Your task to perform on an android device: Open Google Chrome Image 0: 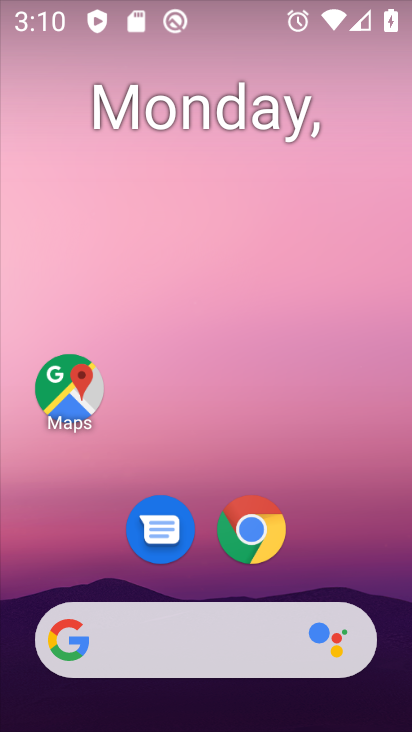
Step 0: click (239, 528)
Your task to perform on an android device: Open Google Chrome Image 1: 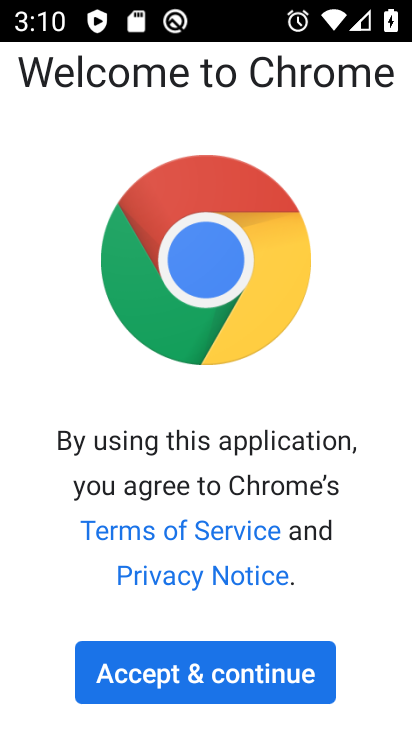
Step 1: click (221, 668)
Your task to perform on an android device: Open Google Chrome Image 2: 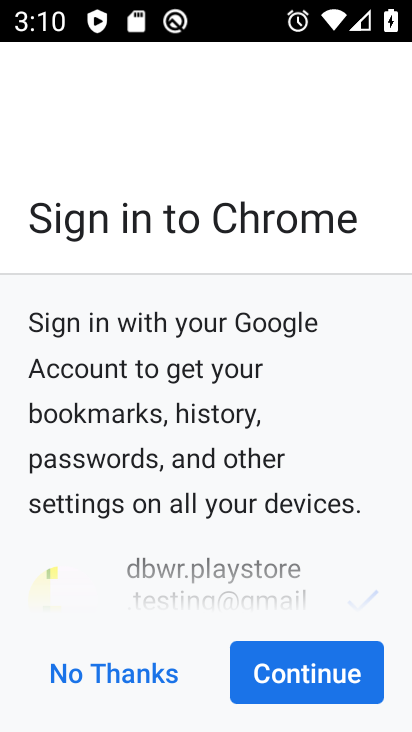
Step 2: click (336, 678)
Your task to perform on an android device: Open Google Chrome Image 3: 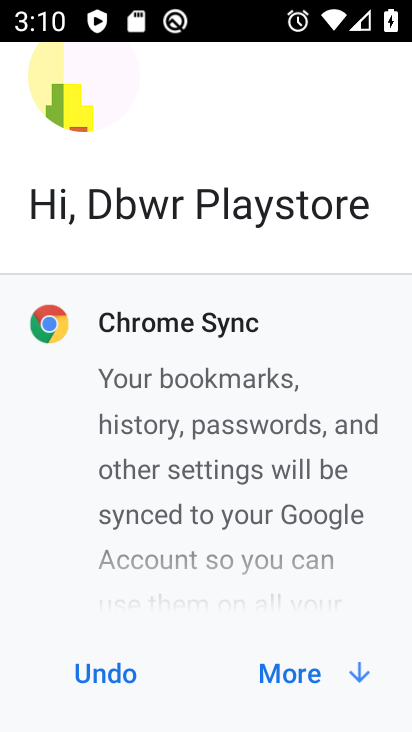
Step 3: click (336, 678)
Your task to perform on an android device: Open Google Chrome Image 4: 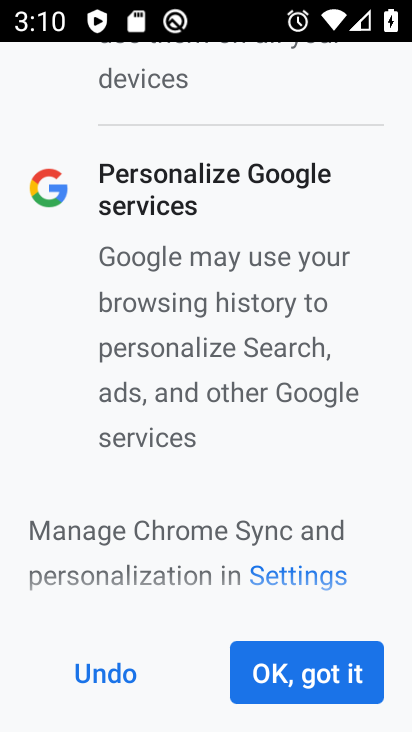
Step 4: click (336, 678)
Your task to perform on an android device: Open Google Chrome Image 5: 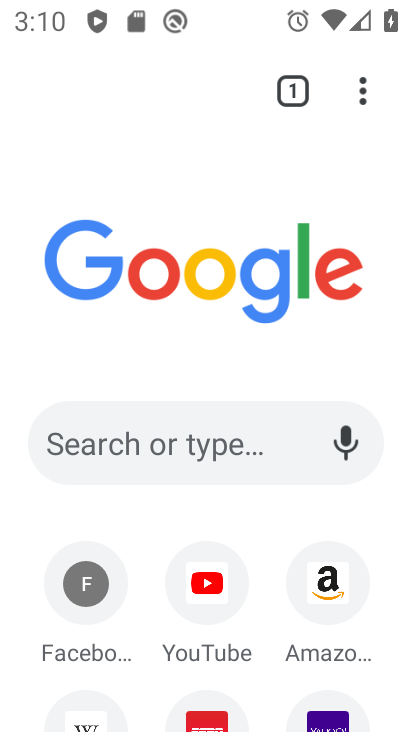
Step 5: task complete